Your task to perform on an android device: Show me productivity apps on the Play Store Image 0: 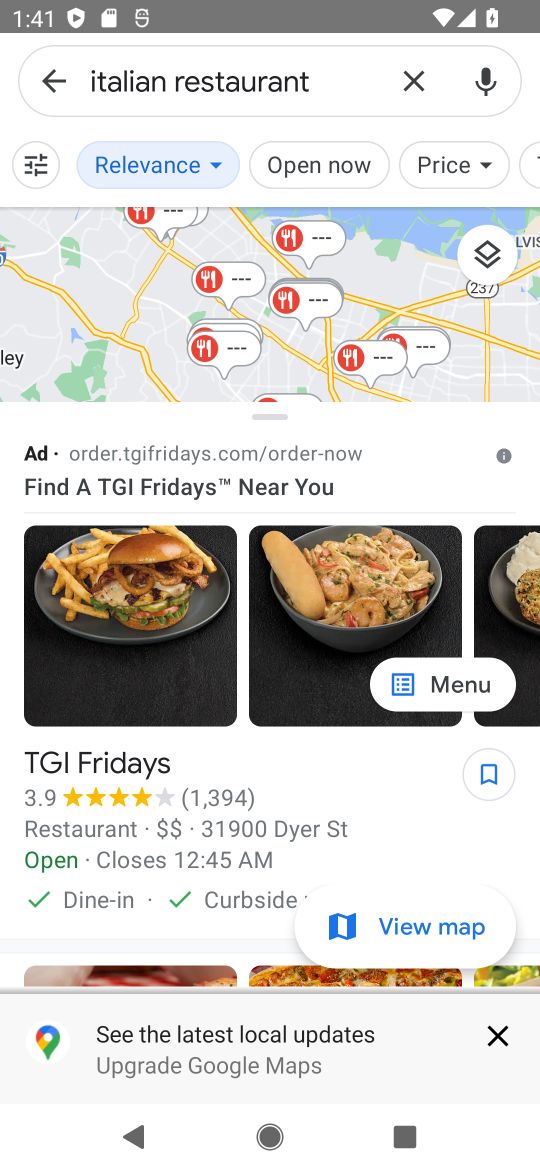
Step 0: press home button
Your task to perform on an android device: Show me productivity apps on the Play Store Image 1: 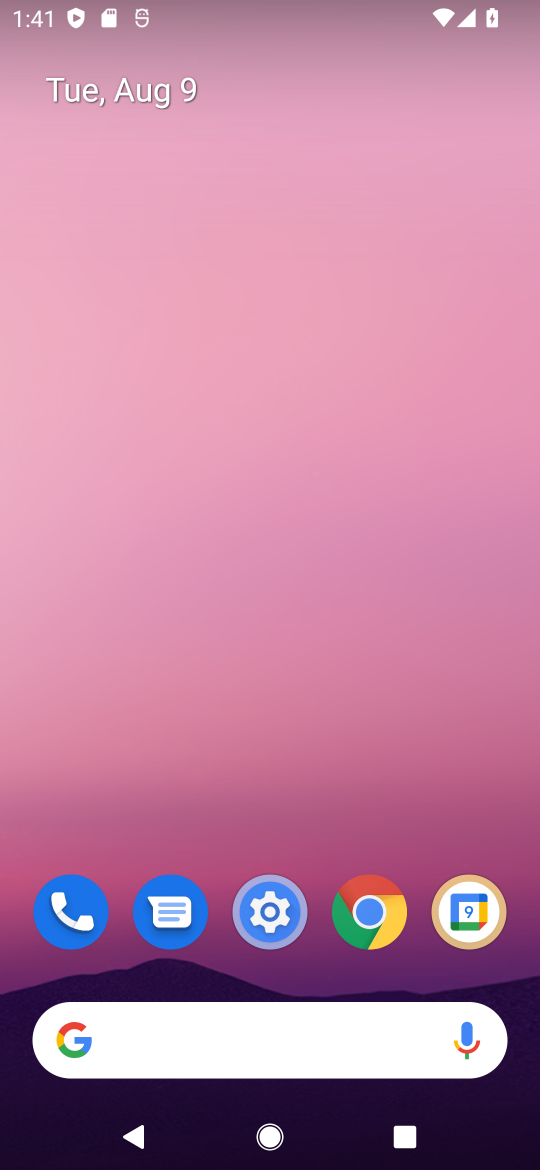
Step 1: drag from (271, 780) to (312, 162)
Your task to perform on an android device: Show me productivity apps on the Play Store Image 2: 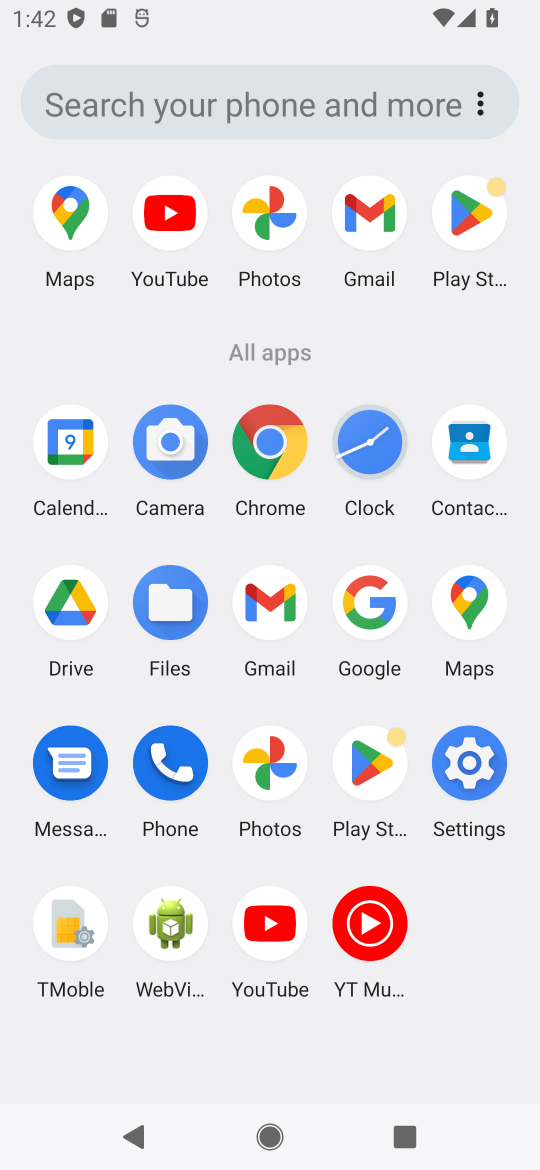
Step 2: click (464, 220)
Your task to perform on an android device: Show me productivity apps on the Play Store Image 3: 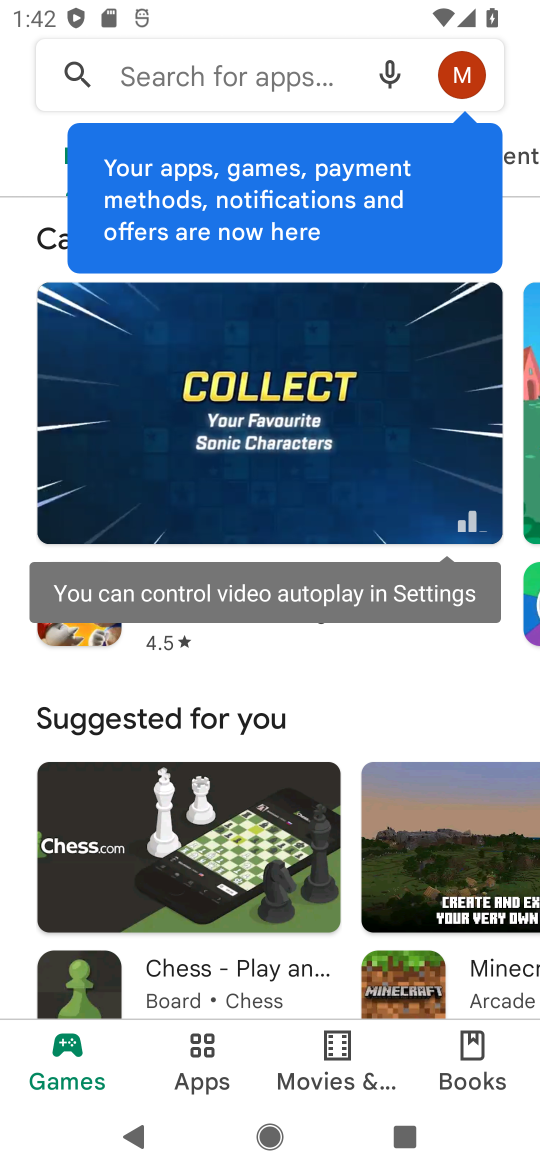
Step 3: click (187, 1048)
Your task to perform on an android device: Show me productivity apps on the Play Store Image 4: 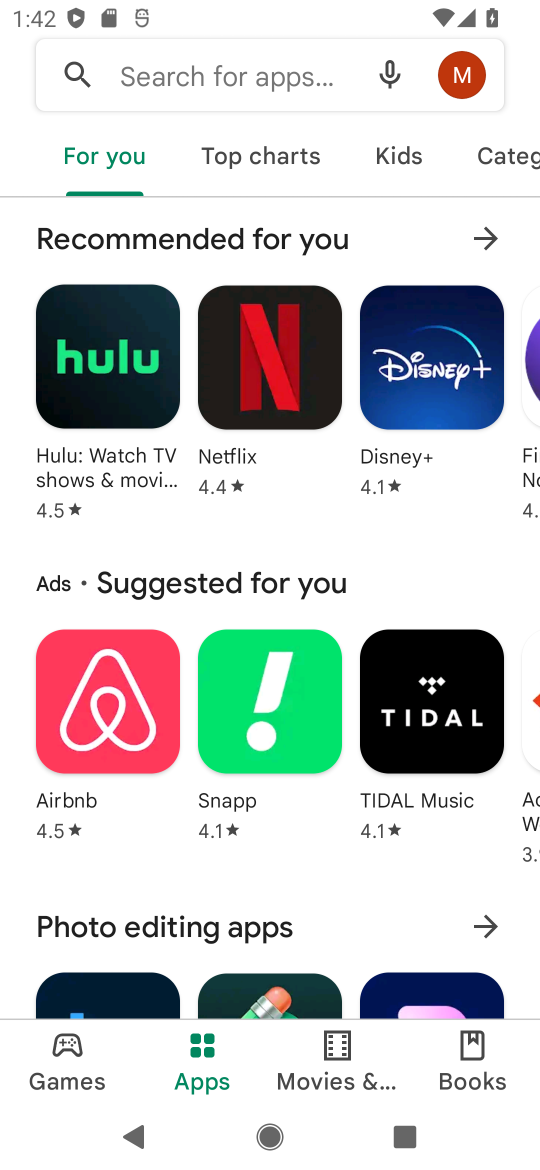
Step 4: task complete